Your task to perform on an android device: change alarm snooze length Image 0: 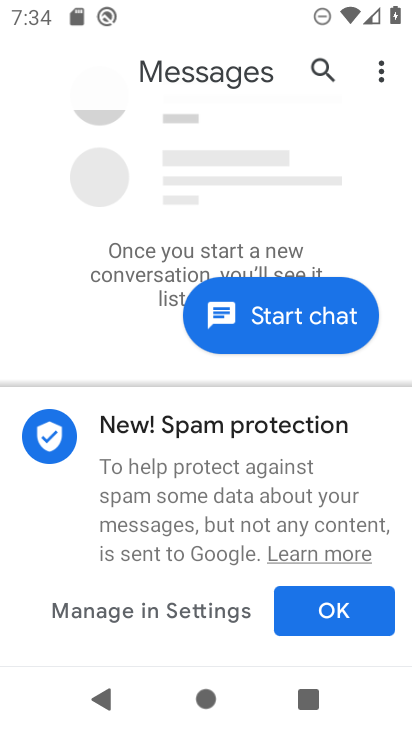
Step 0: press home button
Your task to perform on an android device: change alarm snooze length Image 1: 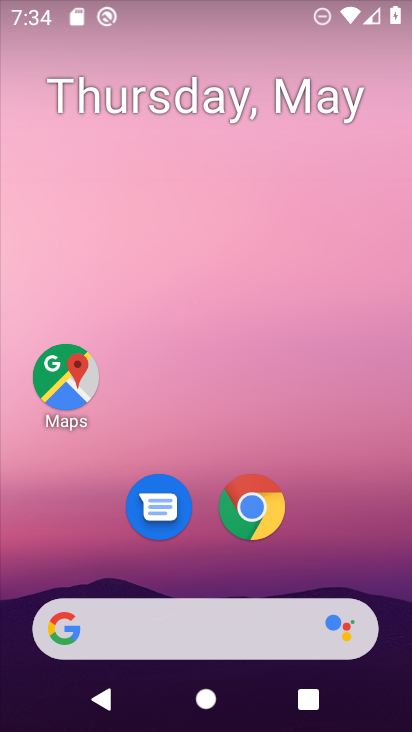
Step 1: drag from (377, 525) to (379, 80)
Your task to perform on an android device: change alarm snooze length Image 2: 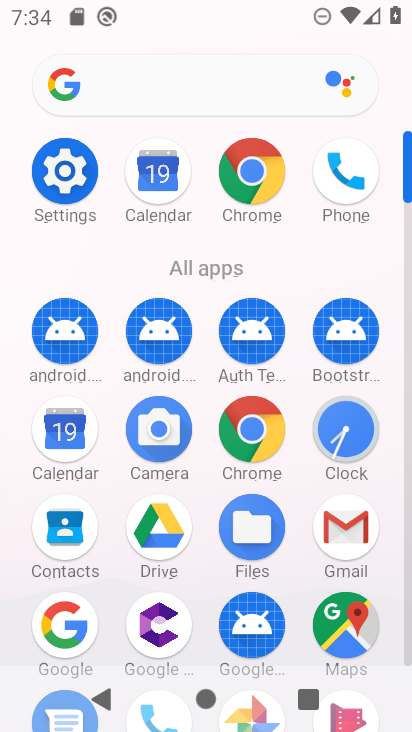
Step 2: click (361, 430)
Your task to perform on an android device: change alarm snooze length Image 3: 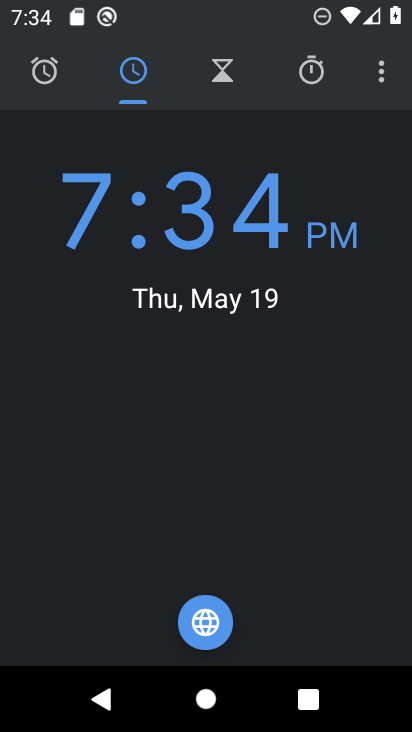
Step 3: click (375, 77)
Your task to perform on an android device: change alarm snooze length Image 4: 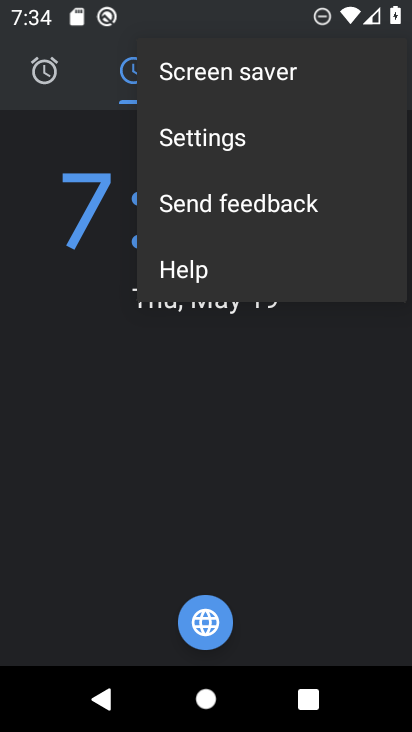
Step 4: click (223, 143)
Your task to perform on an android device: change alarm snooze length Image 5: 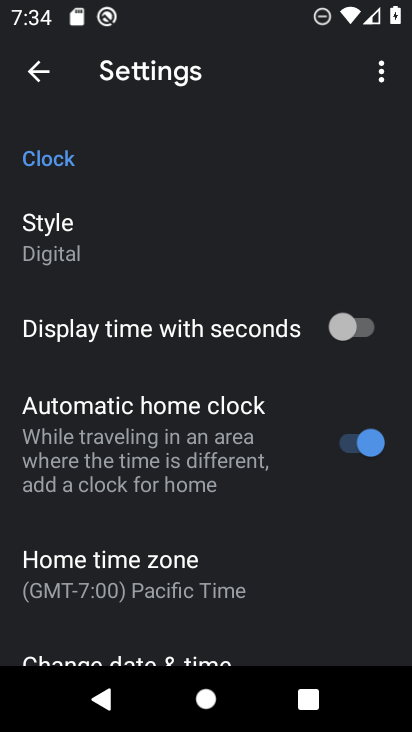
Step 5: drag from (138, 553) to (146, 191)
Your task to perform on an android device: change alarm snooze length Image 6: 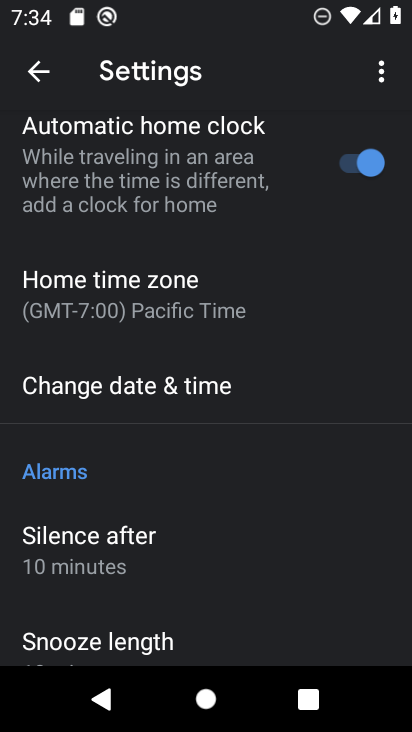
Step 6: drag from (213, 602) to (203, 220)
Your task to perform on an android device: change alarm snooze length Image 7: 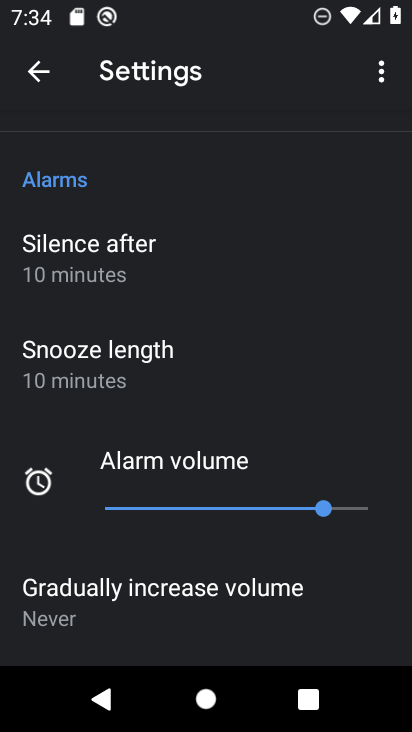
Step 7: click (132, 372)
Your task to perform on an android device: change alarm snooze length Image 8: 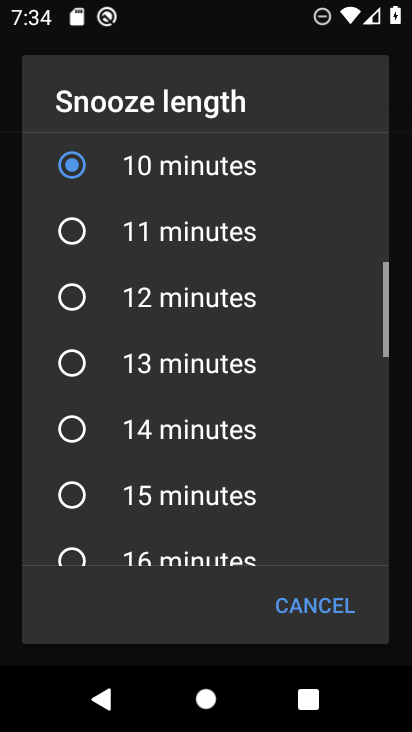
Step 8: click (85, 386)
Your task to perform on an android device: change alarm snooze length Image 9: 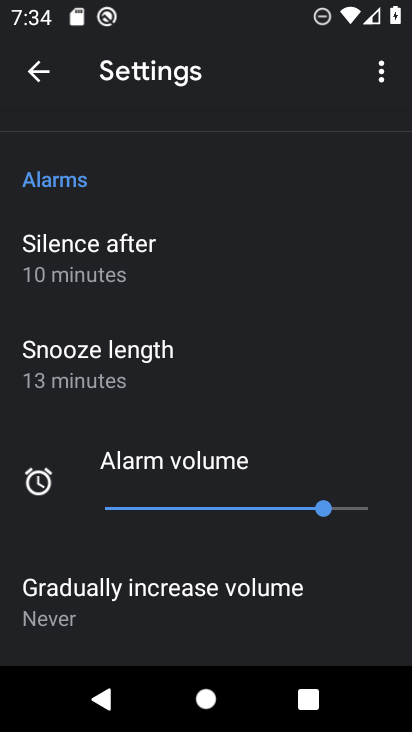
Step 9: task complete